Your task to perform on an android device: turn on priority inbox in the gmail app Image 0: 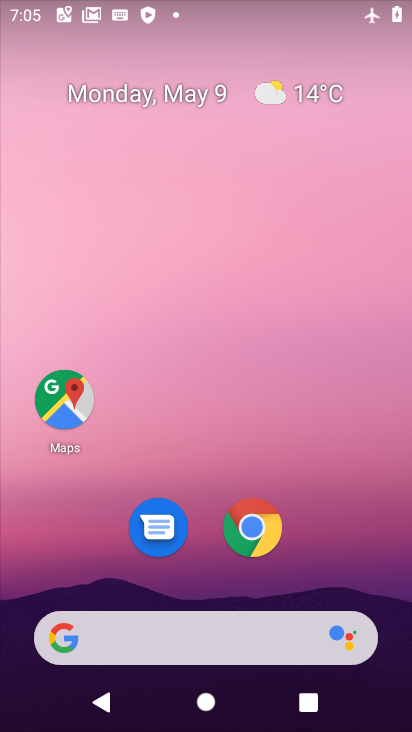
Step 0: drag from (325, 540) to (235, 43)
Your task to perform on an android device: turn on priority inbox in the gmail app Image 1: 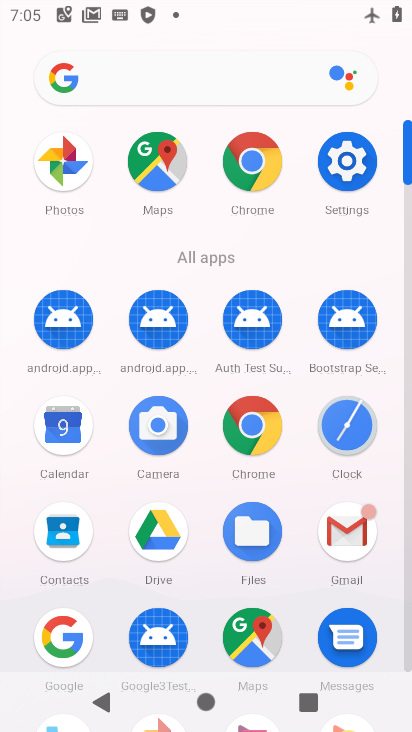
Step 1: click (350, 530)
Your task to perform on an android device: turn on priority inbox in the gmail app Image 2: 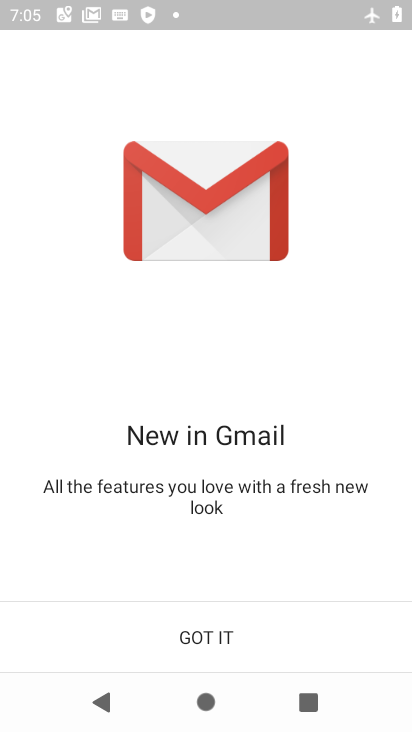
Step 2: click (216, 638)
Your task to perform on an android device: turn on priority inbox in the gmail app Image 3: 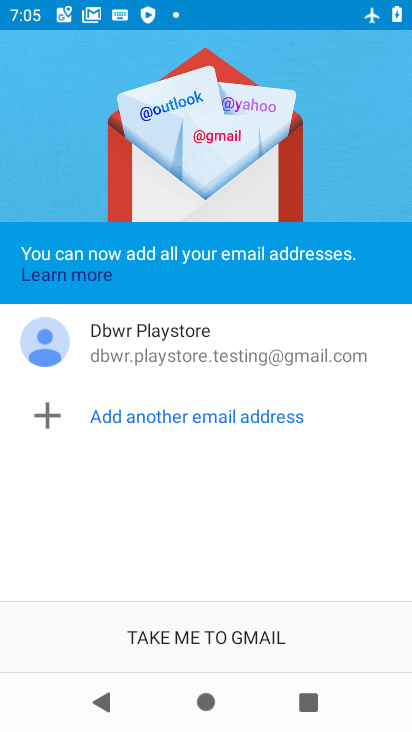
Step 3: click (216, 637)
Your task to perform on an android device: turn on priority inbox in the gmail app Image 4: 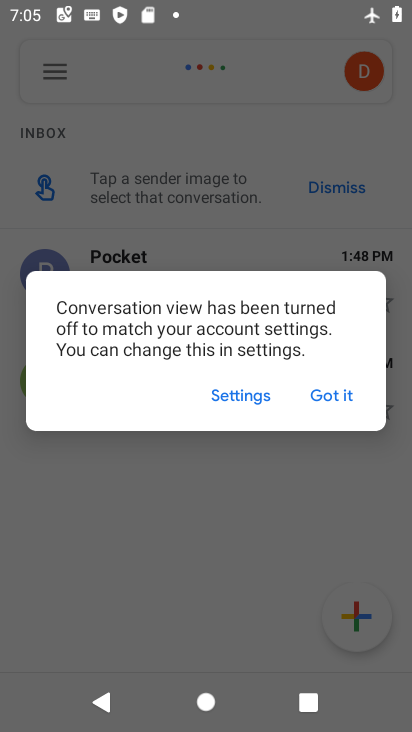
Step 4: click (332, 397)
Your task to perform on an android device: turn on priority inbox in the gmail app Image 5: 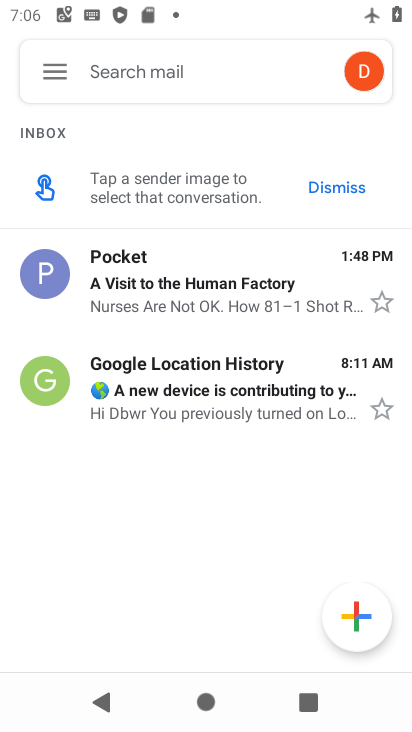
Step 5: click (46, 73)
Your task to perform on an android device: turn on priority inbox in the gmail app Image 6: 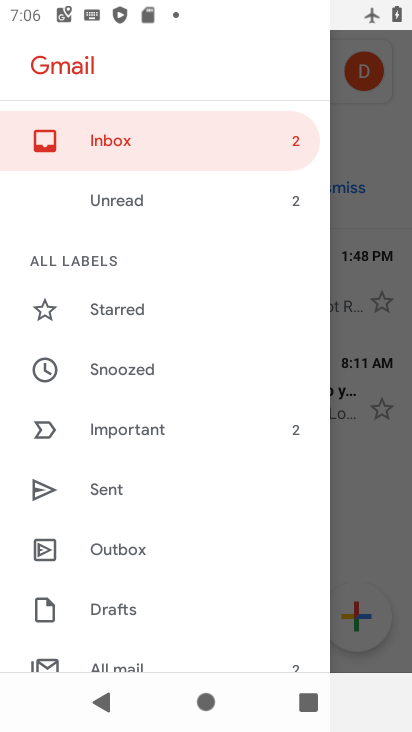
Step 6: drag from (162, 487) to (184, 409)
Your task to perform on an android device: turn on priority inbox in the gmail app Image 7: 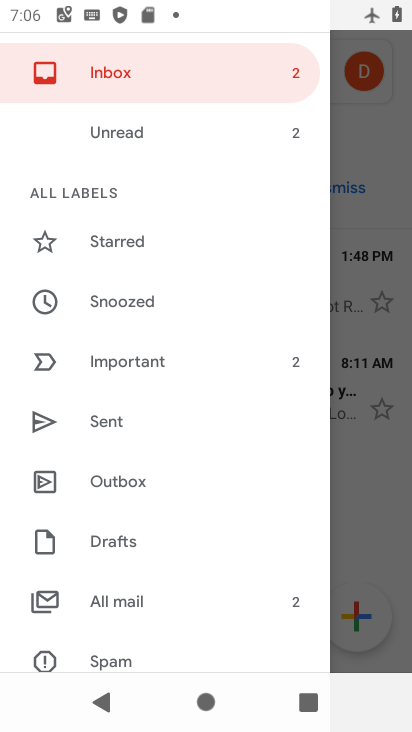
Step 7: drag from (159, 592) to (203, 477)
Your task to perform on an android device: turn on priority inbox in the gmail app Image 8: 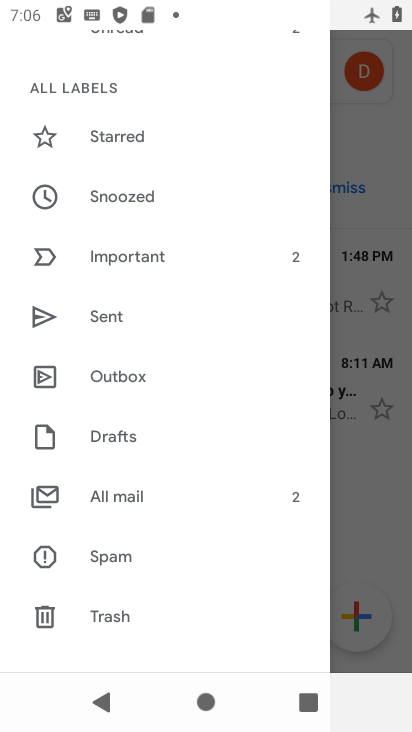
Step 8: drag from (160, 591) to (182, 498)
Your task to perform on an android device: turn on priority inbox in the gmail app Image 9: 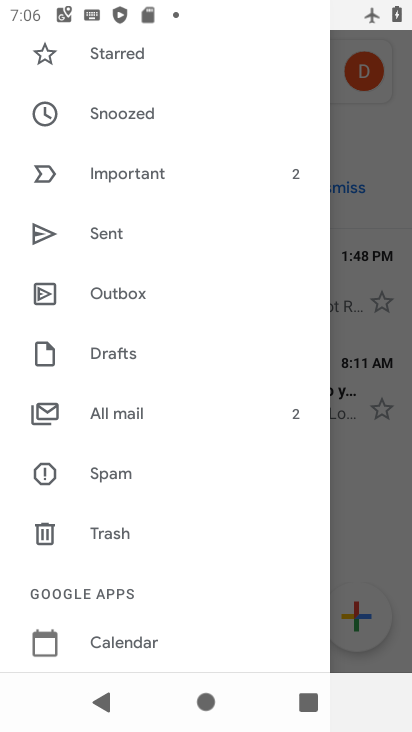
Step 9: drag from (153, 611) to (193, 470)
Your task to perform on an android device: turn on priority inbox in the gmail app Image 10: 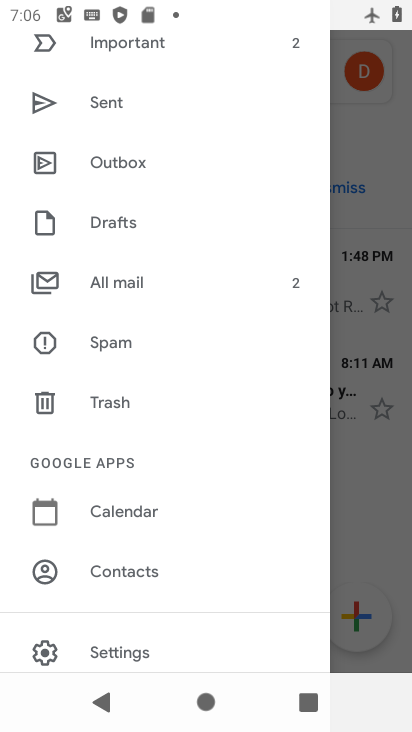
Step 10: drag from (167, 591) to (194, 517)
Your task to perform on an android device: turn on priority inbox in the gmail app Image 11: 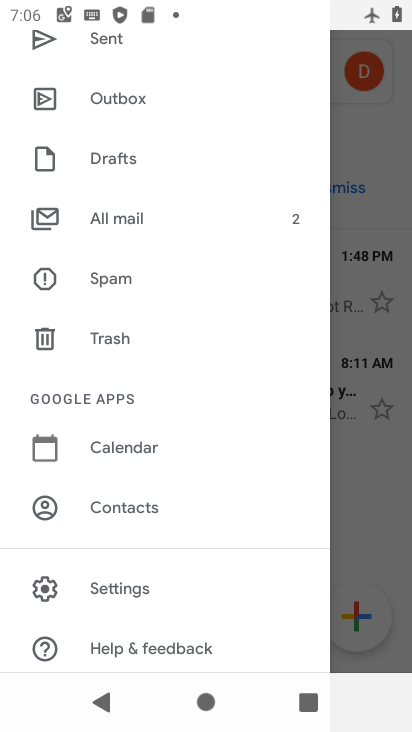
Step 11: click (134, 591)
Your task to perform on an android device: turn on priority inbox in the gmail app Image 12: 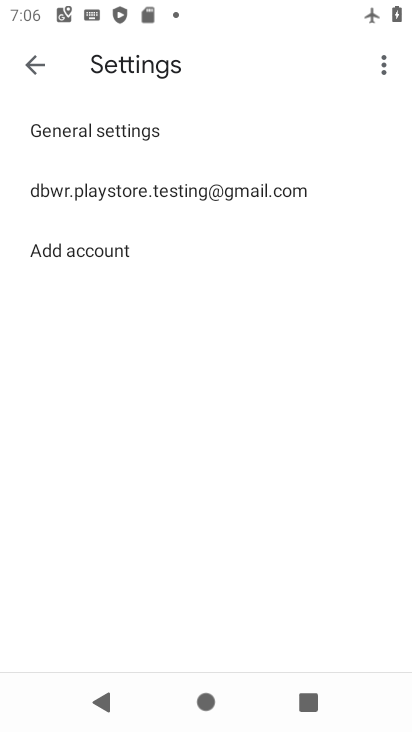
Step 12: click (134, 191)
Your task to perform on an android device: turn on priority inbox in the gmail app Image 13: 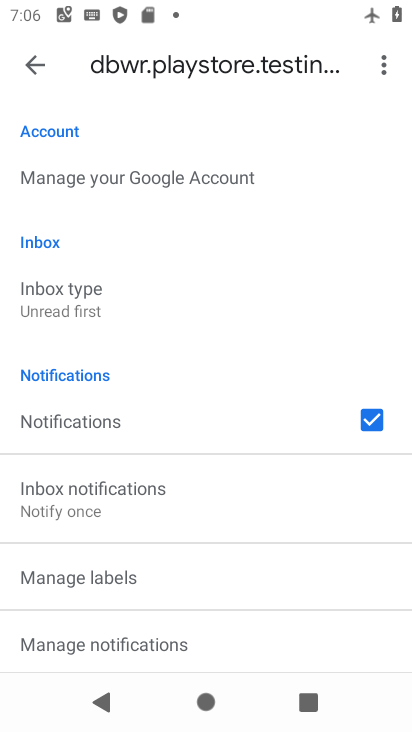
Step 13: click (91, 293)
Your task to perform on an android device: turn on priority inbox in the gmail app Image 14: 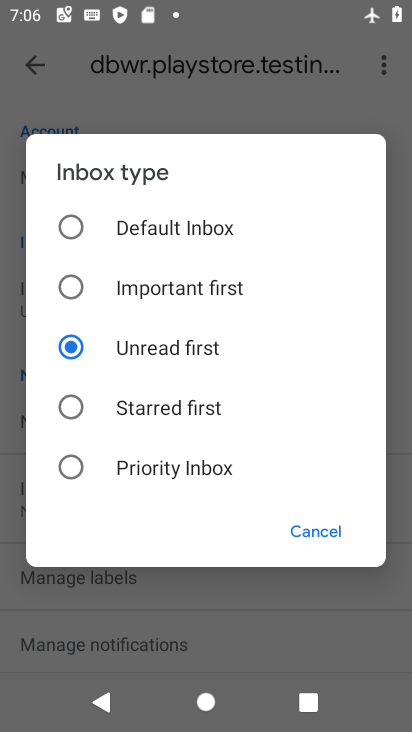
Step 14: click (73, 462)
Your task to perform on an android device: turn on priority inbox in the gmail app Image 15: 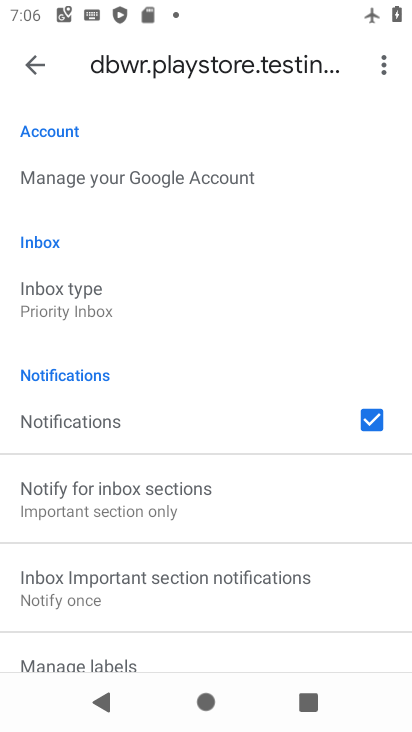
Step 15: task complete